Your task to perform on an android device: Search for Italian restaurants on Maps Image 0: 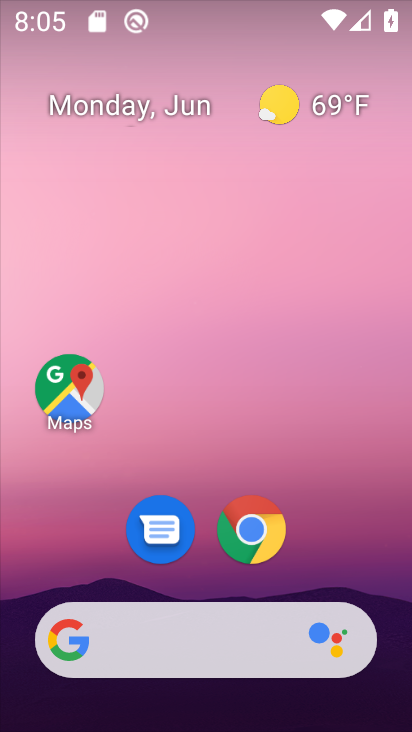
Step 0: click (63, 401)
Your task to perform on an android device: Search for Italian restaurants on Maps Image 1: 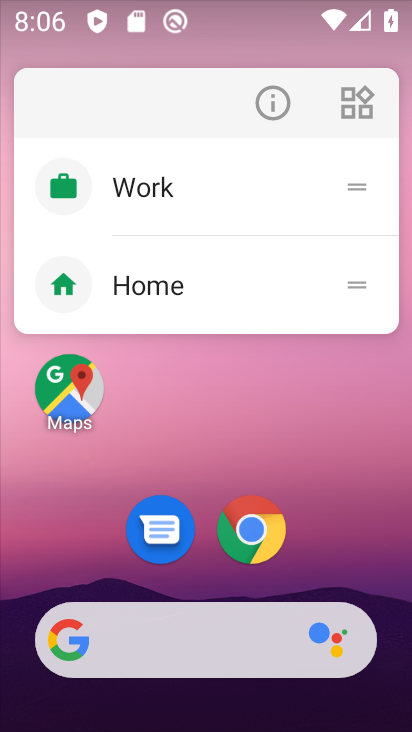
Step 1: click (218, 434)
Your task to perform on an android device: Search for Italian restaurants on Maps Image 2: 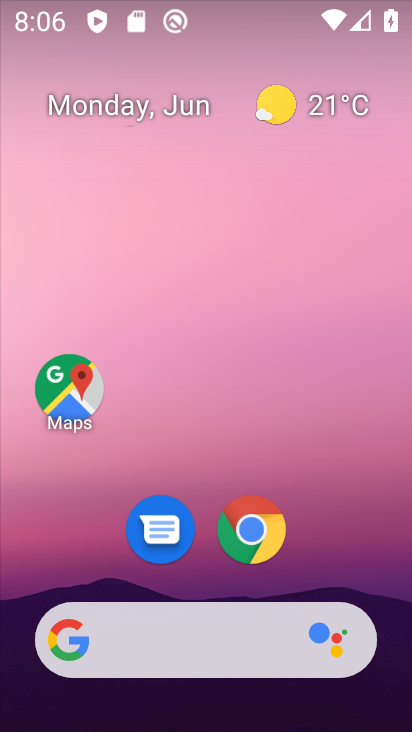
Step 2: click (64, 386)
Your task to perform on an android device: Search for Italian restaurants on Maps Image 3: 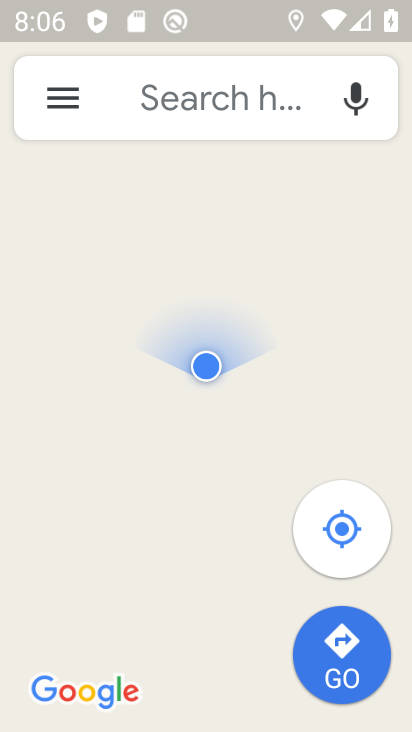
Step 3: click (178, 99)
Your task to perform on an android device: Search for Italian restaurants on Maps Image 4: 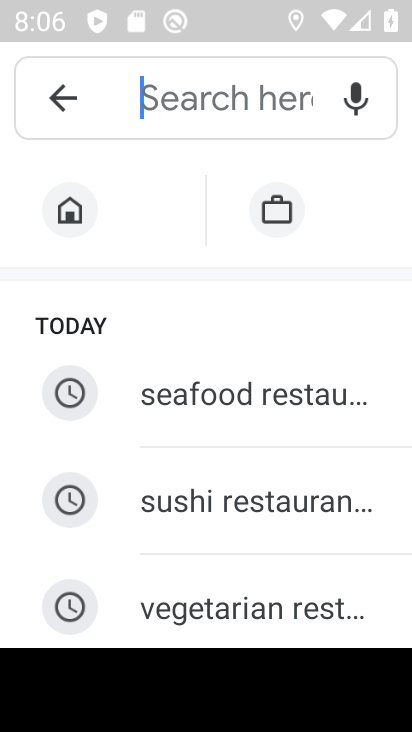
Step 4: drag from (318, 540) to (378, 116)
Your task to perform on an android device: Search for Italian restaurants on Maps Image 5: 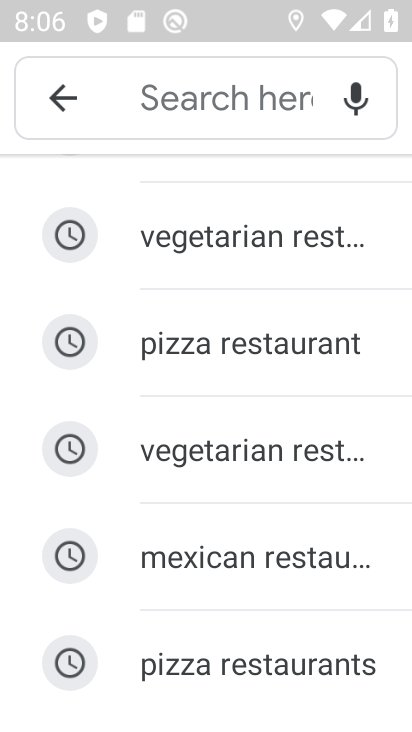
Step 5: drag from (289, 599) to (358, 313)
Your task to perform on an android device: Search for Italian restaurants on Maps Image 6: 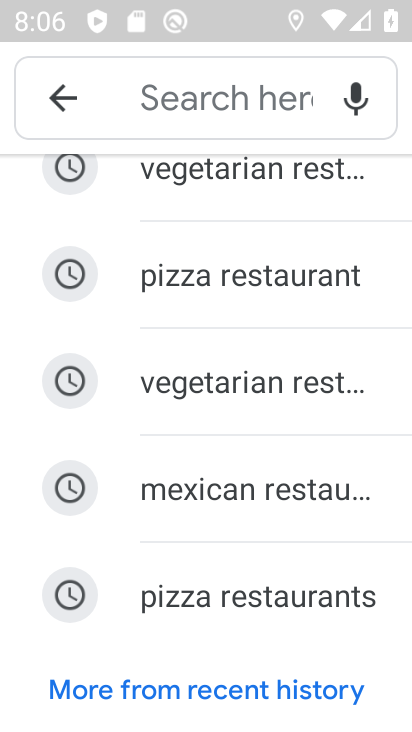
Step 6: click (145, 81)
Your task to perform on an android device: Search for Italian restaurants on Maps Image 7: 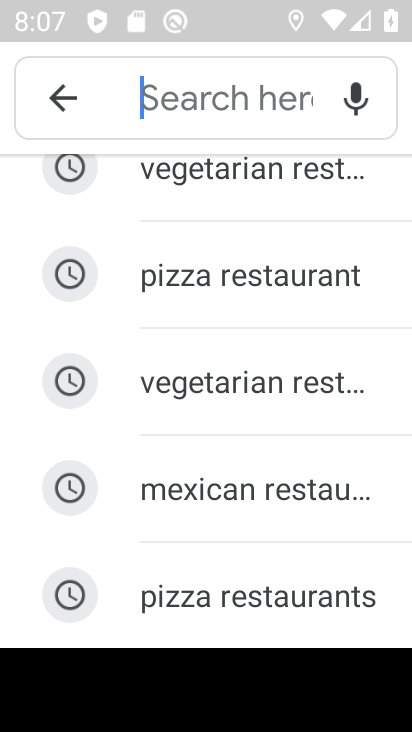
Step 7: type "Italian restaurants"
Your task to perform on an android device: Search for Italian restaurants on Maps Image 8: 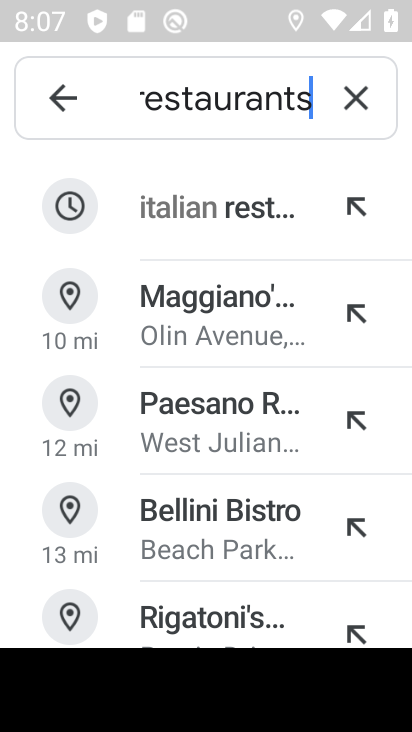
Step 8: click (165, 224)
Your task to perform on an android device: Search for Italian restaurants on Maps Image 9: 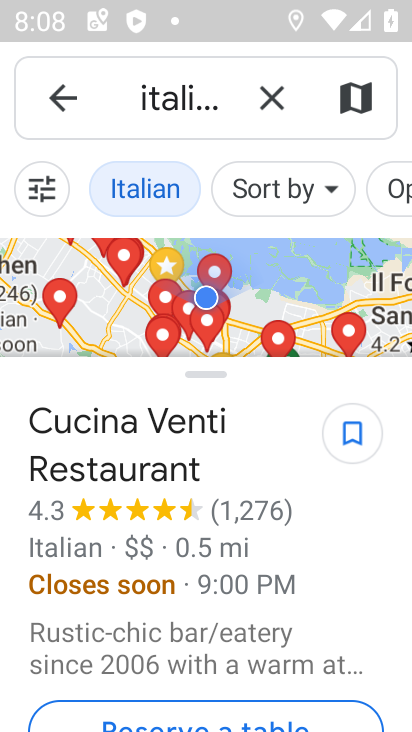
Step 9: task complete